Your task to perform on an android device: see tabs open on other devices in the chrome app Image 0: 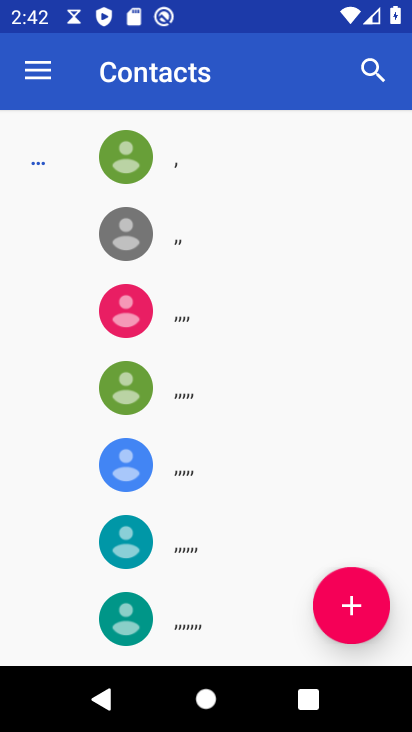
Step 0: press home button
Your task to perform on an android device: see tabs open on other devices in the chrome app Image 1: 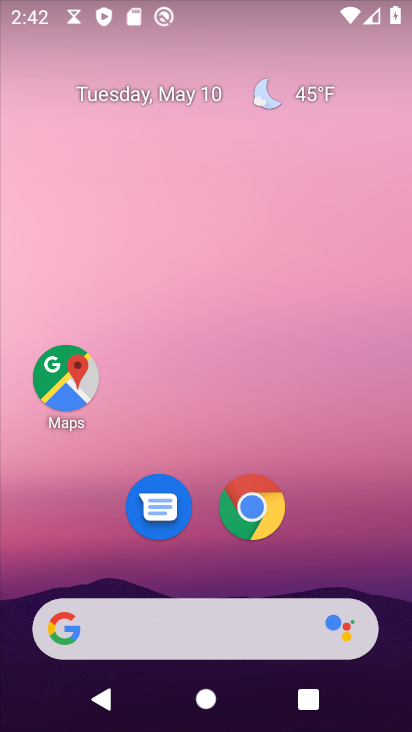
Step 1: click (259, 509)
Your task to perform on an android device: see tabs open on other devices in the chrome app Image 2: 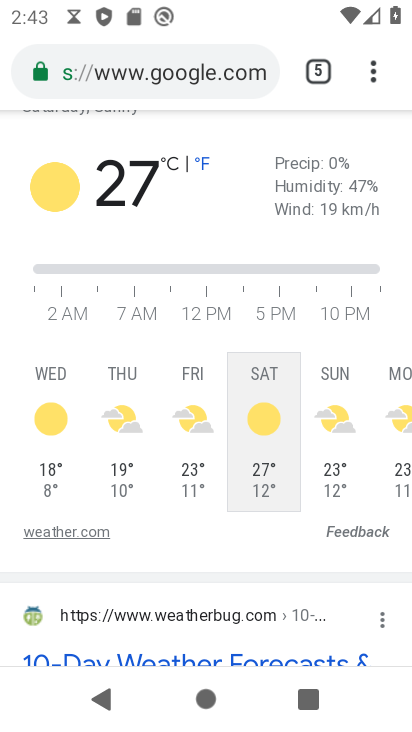
Step 2: click (375, 74)
Your task to perform on an android device: see tabs open on other devices in the chrome app Image 3: 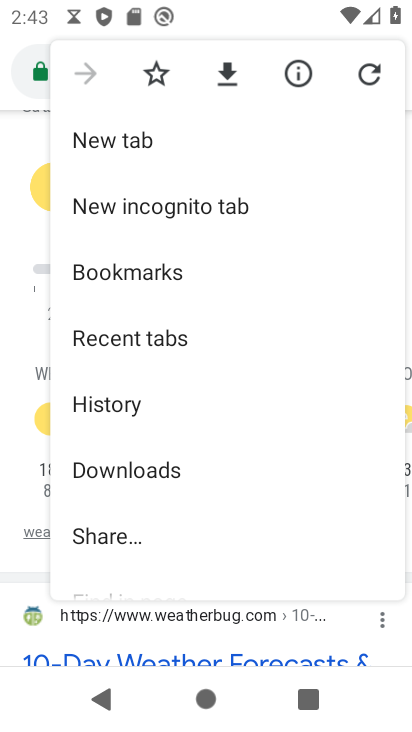
Step 3: drag from (149, 537) to (140, 204)
Your task to perform on an android device: see tabs open on other devices in the chrome app Image 4: 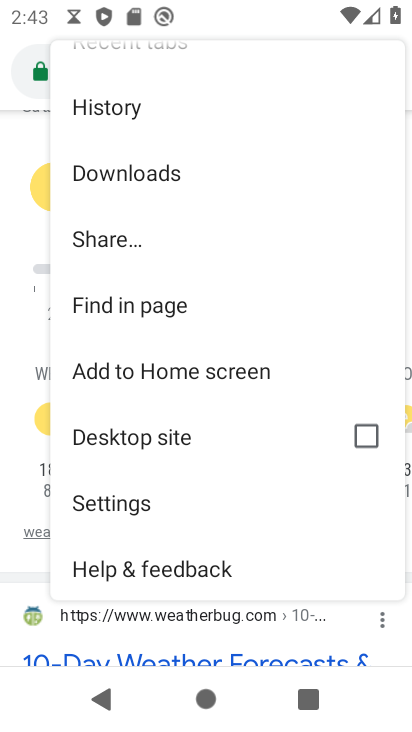
Step 4: drag from (133, 156) to (146, 537)
Your task to perform on an android device: see tabs open on other devices in the chrome app Image 5: 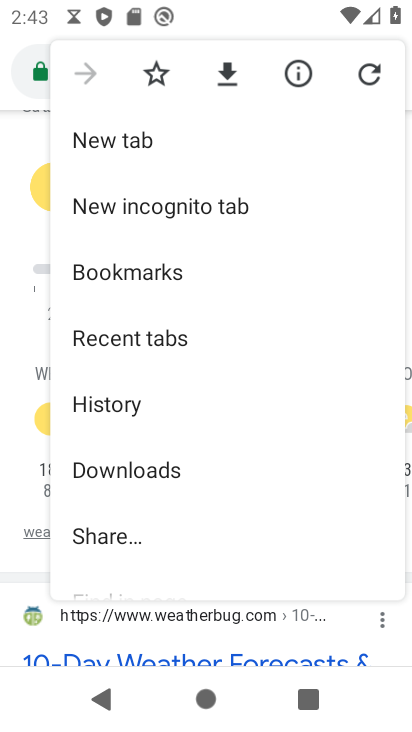
Step 5: click (124, 331)
Your task to perform on an android device: see tabs open on other devices in the chrome app Image 6: 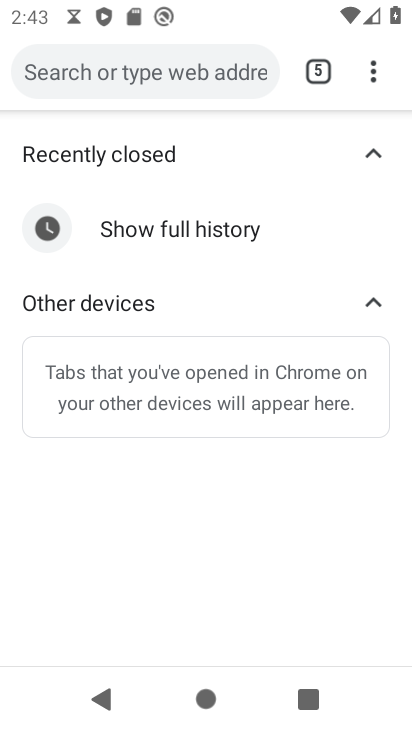
Step 6: task complete